Your task to perform on an android device: open app "Instagram" Image 0: 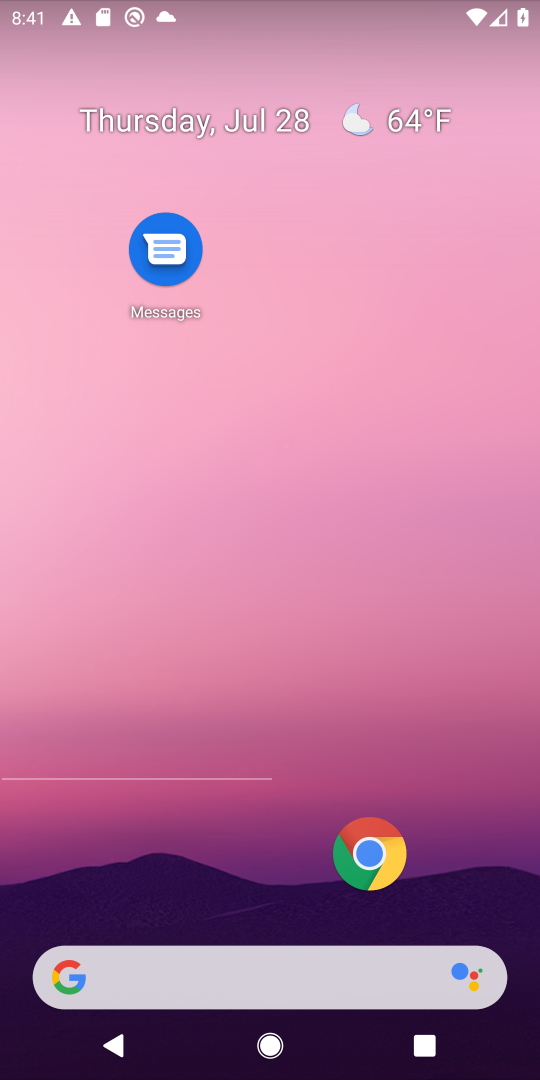
Step 0: drag from (181, 29) to (78, 20)
Your task to perform on an android device: open app "Instagram" Image 1: 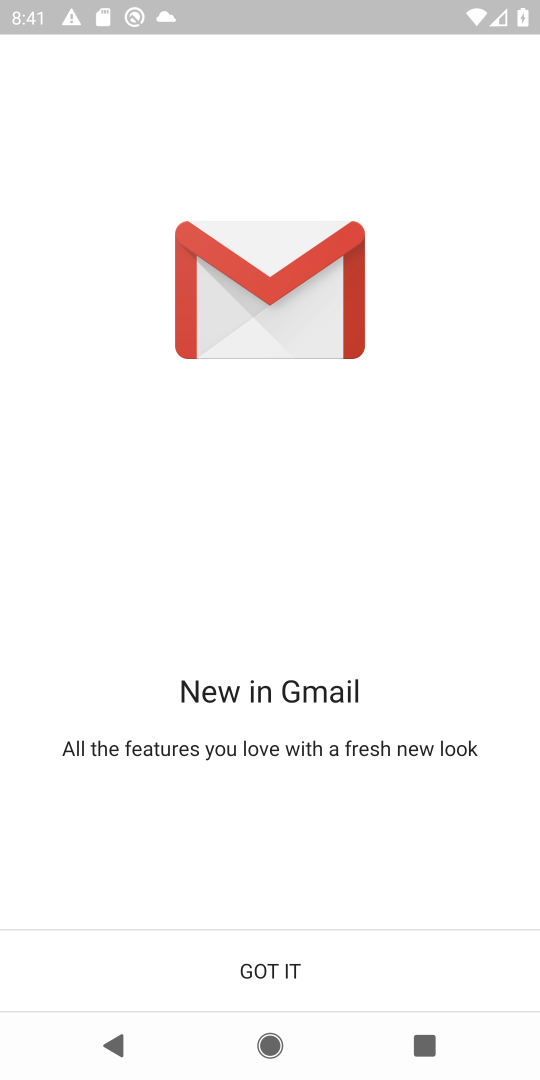
Step 1: click (267, 972)
Your task to perform on an android device: open app "Instagram" Image 2: 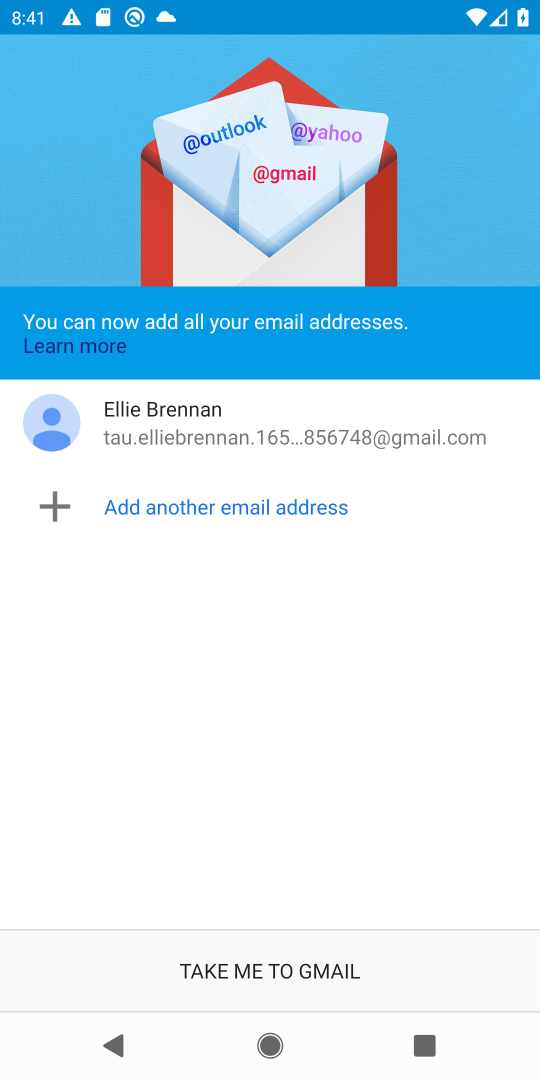
Step 2: click (267, 972)
Your task to perform on an android device: open app "Instagram" Image 3: 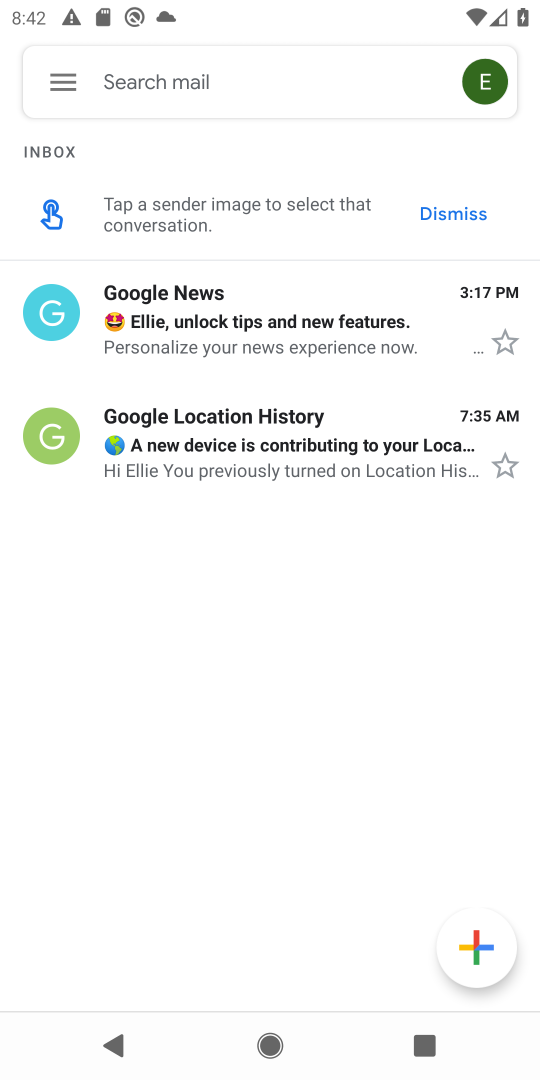
Step 3: press home button
Your task to perform on an android device: open app "Instagram" Image 4: 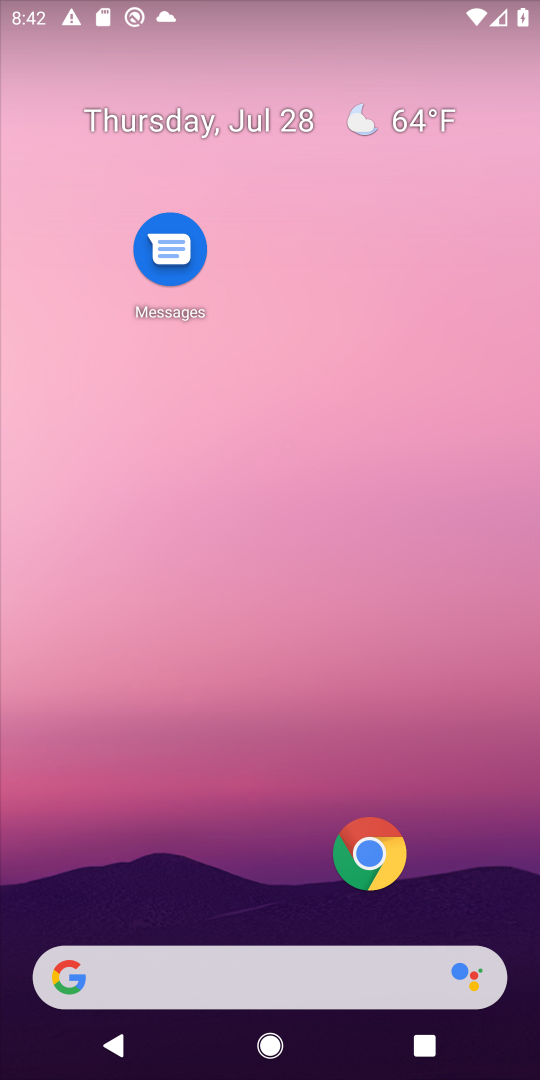
Step 4: drag from (251, 795) to (247, 240)
Your task to perform on an android device: open app "Instagram" Image 5: 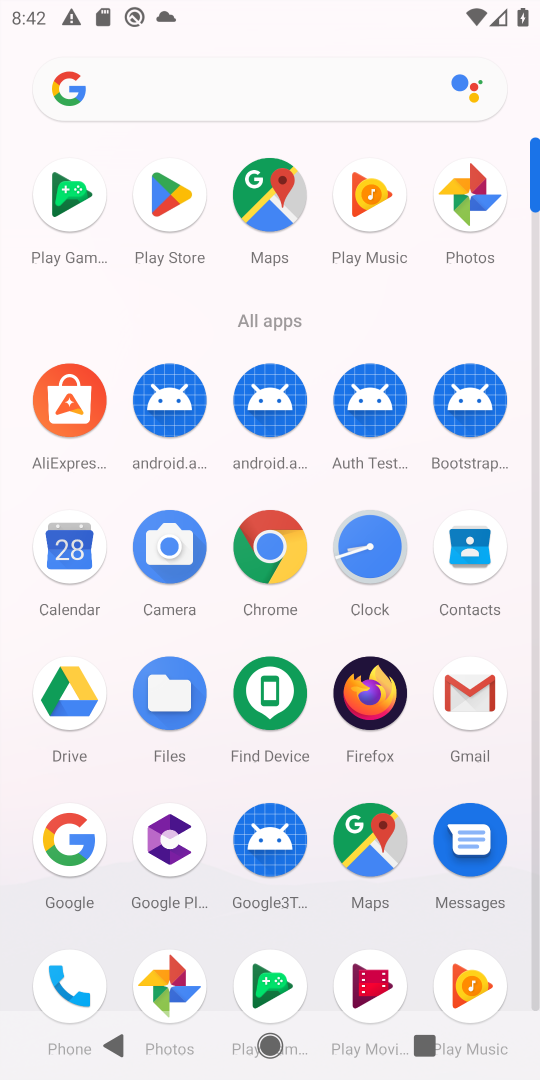
Step 5: click (171, 200)
Your task to perform on an android device: open app "Instagram" Image 6: 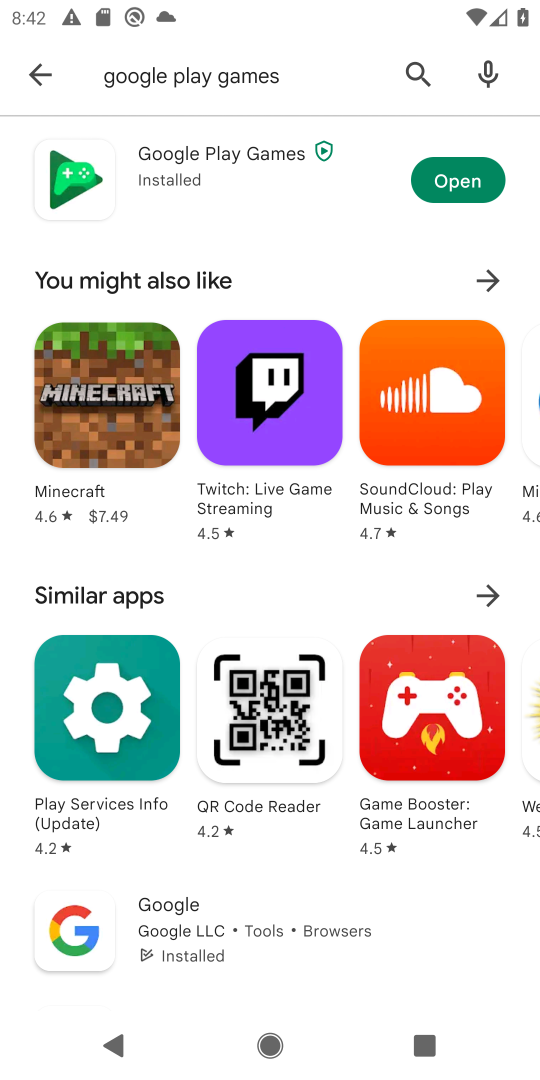
Step 6: click (46, 84)
Your task to perform on an android device: open app "Instagram" Image 7: 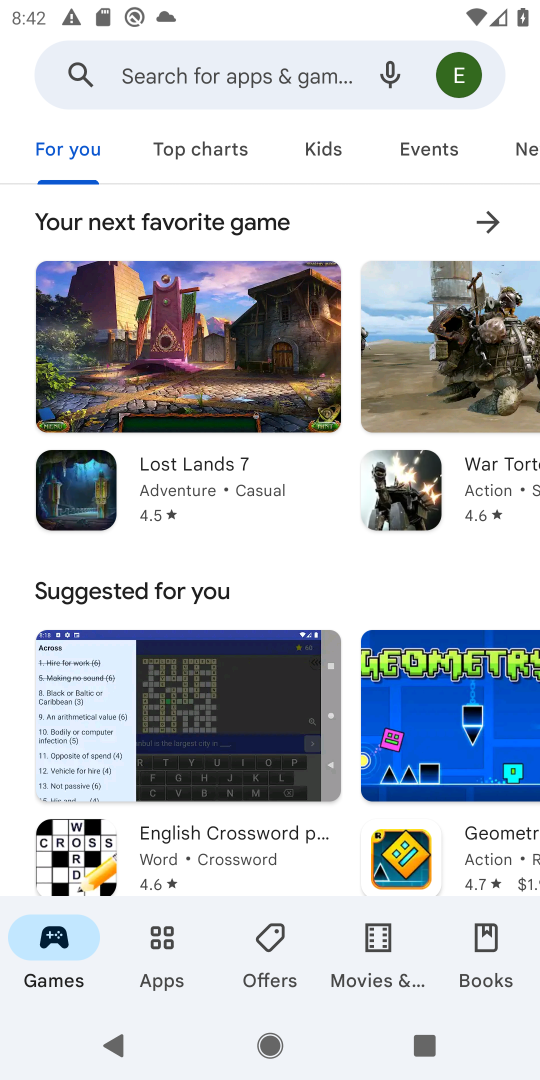
Step 7: click (263, 87)
Your task to perform on an android device: open app "Instagram" Image 8: 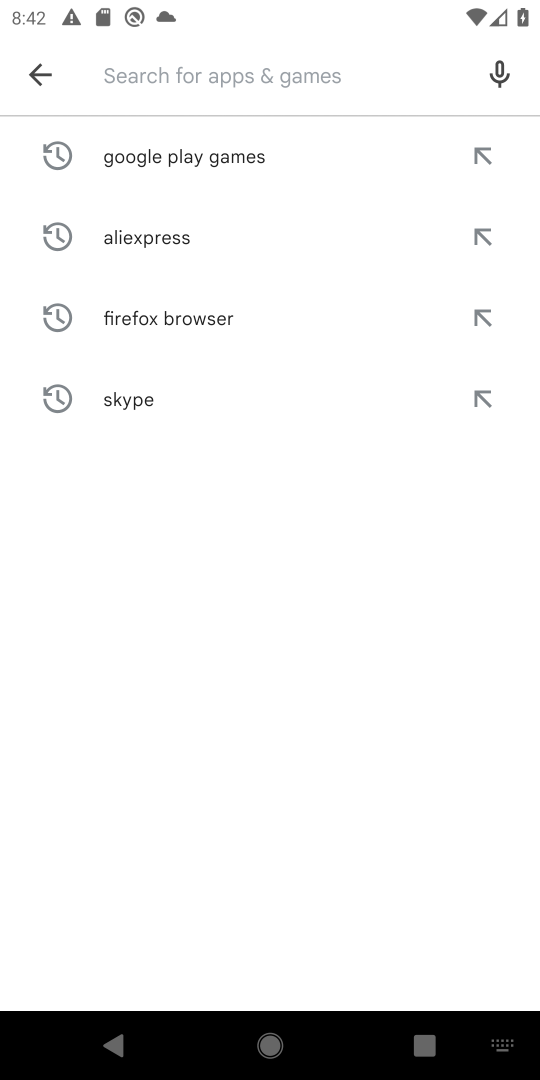
Step 8: type "instagram"
Your task to perform on an android device: open app "Instagram" Image 9: 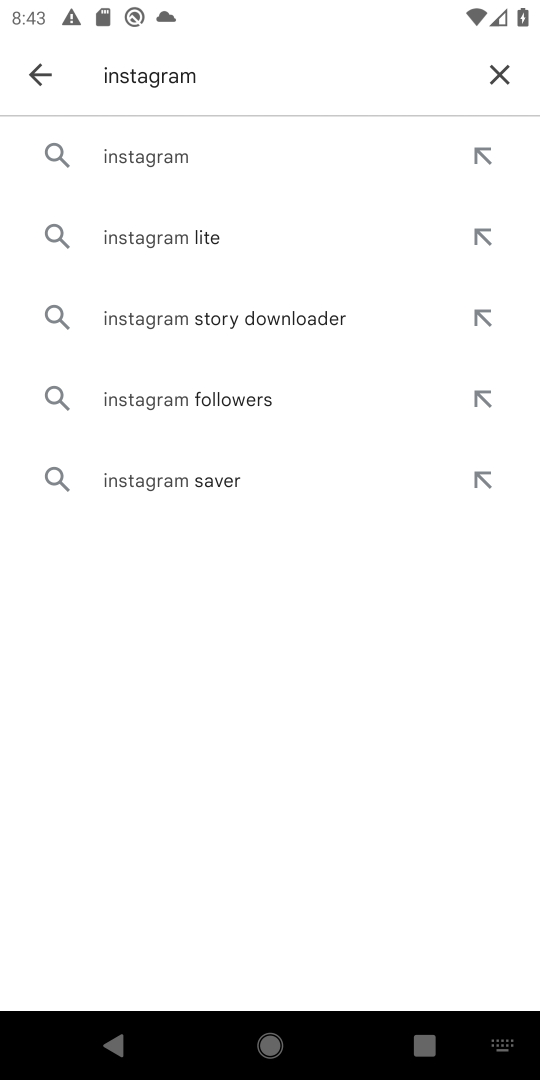
Step 9: click (162, 152)
Your task to perform on an android device: open app "Instagram" Image 10: 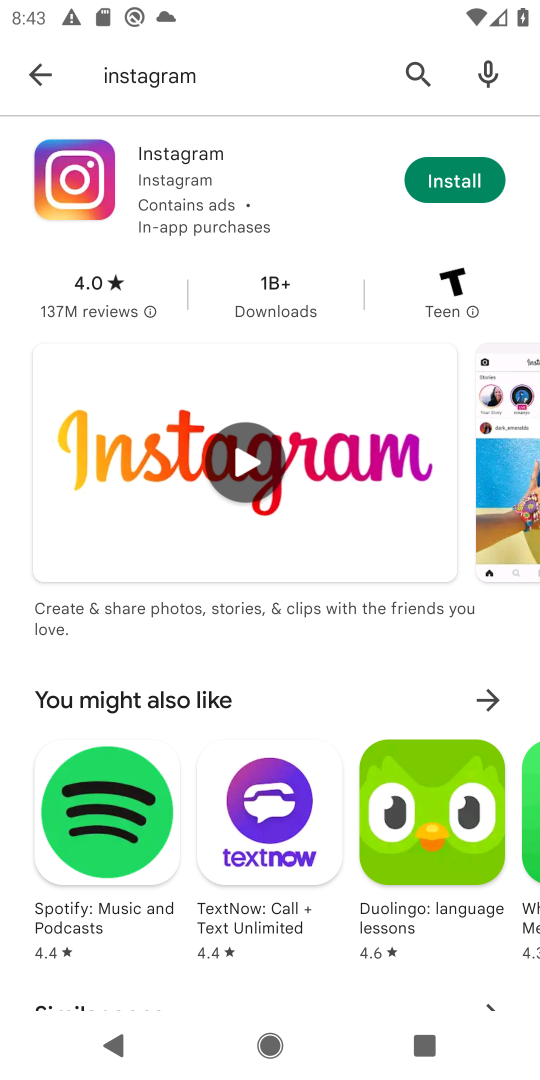
Step 10: click (455, 181)
Your task to perform on an android device: open app "Instagram" Image 11: 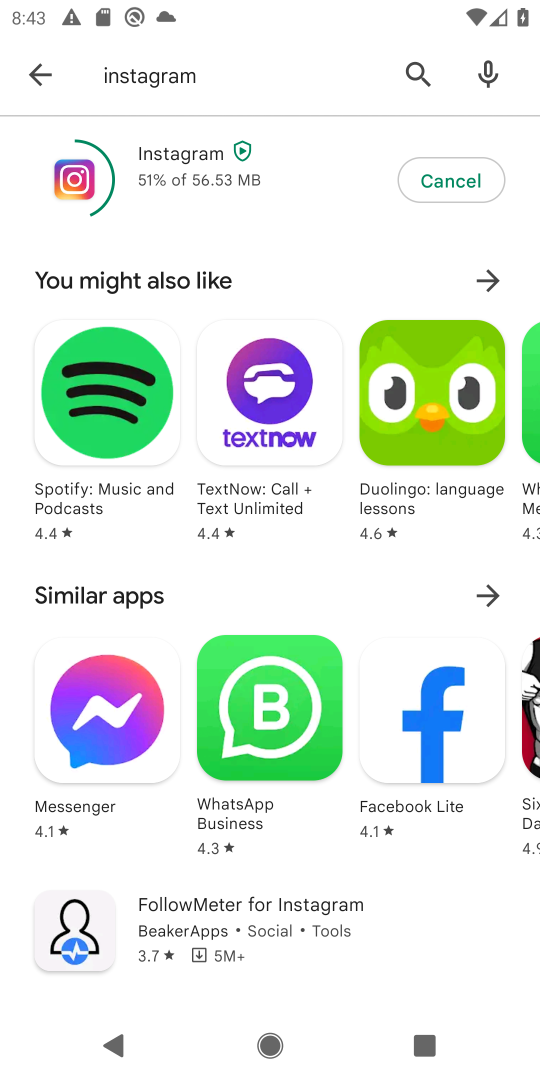
Step 11: task complete